Your task to perform on an android device: Open wifi settings Image 0: 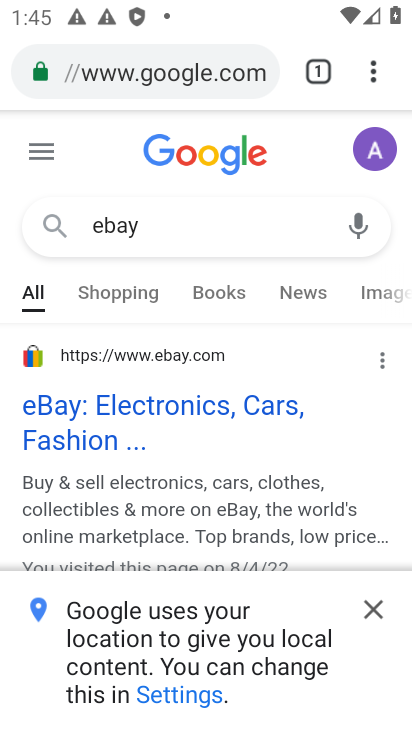
Step 0: press home button
Your task to perform on an android device: Open wifi settings Image 1: 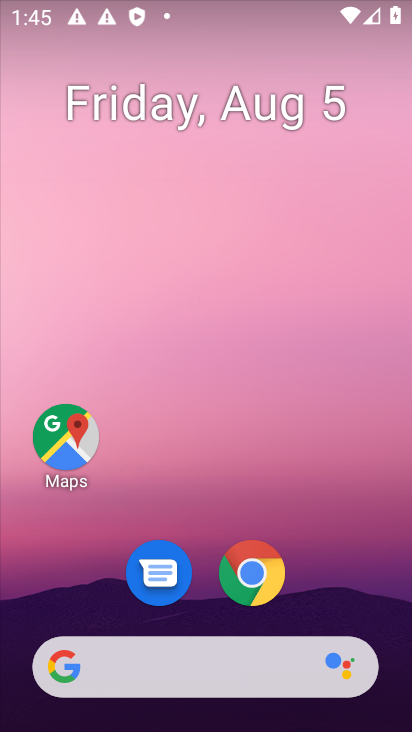
Step 1: drag from (347, 583) to (385, 253)
Your task to perform on an android device: Open wifi settings Image 2: 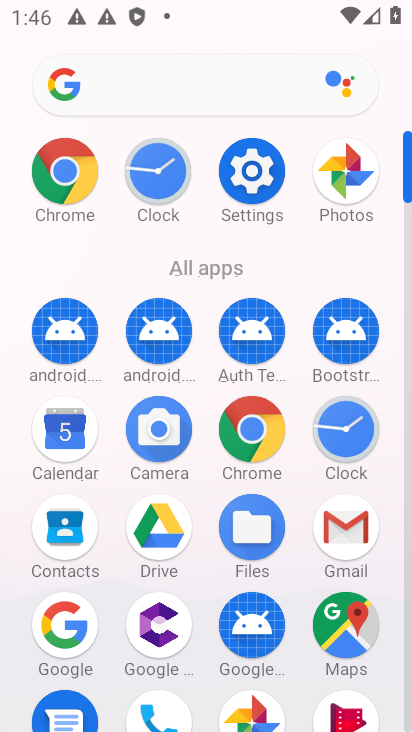
Step 2: click (263, 176)
Your task to perform on an android device: Open wifi settings Image 3: 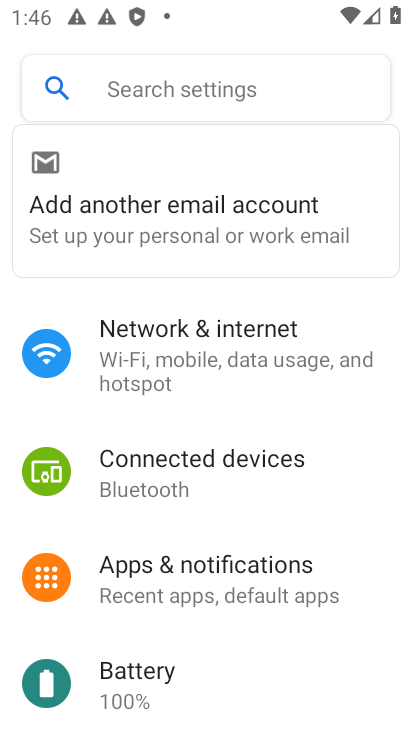
Step 3: drag from (347, 494) to (357, 399)
Your task to perform on an android device: Open wifi settings Image 4: 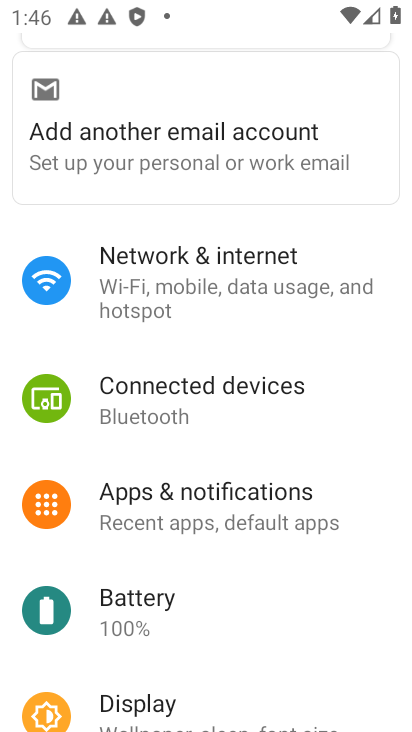
Step 4: drag from (367, 591) to (394, 439)
Your task to perform on an android device: Open wifi settings Image 5: 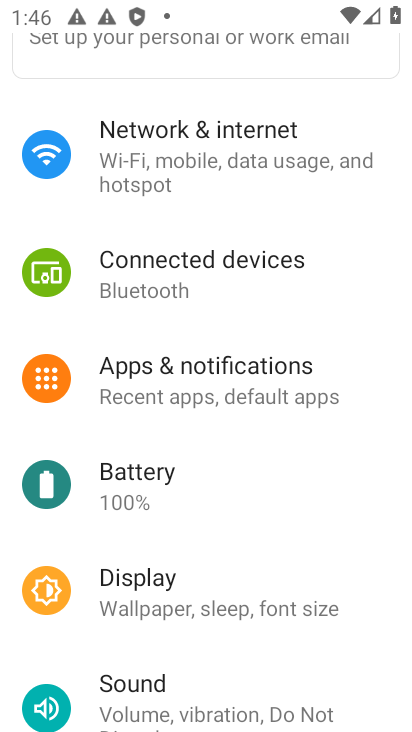
Step 5: drag from (379, 562) to (380, 457)
Your task to perform on an android device: Open wifi settings Image 6: 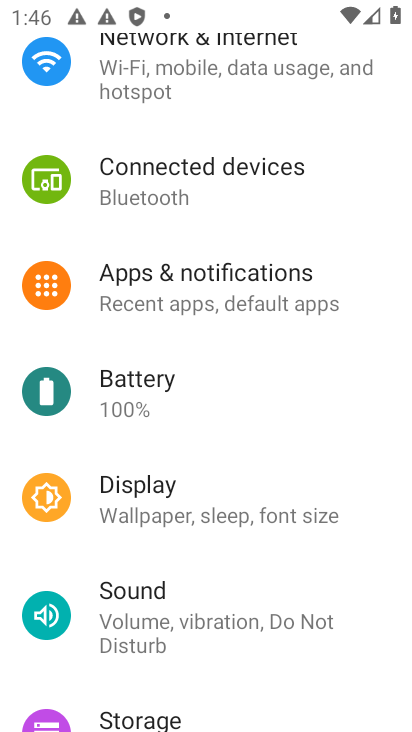
Step 6: drag from (352, 562) to (357, 464)
Your task to perform on an android device: Open wifi settings Image 7: 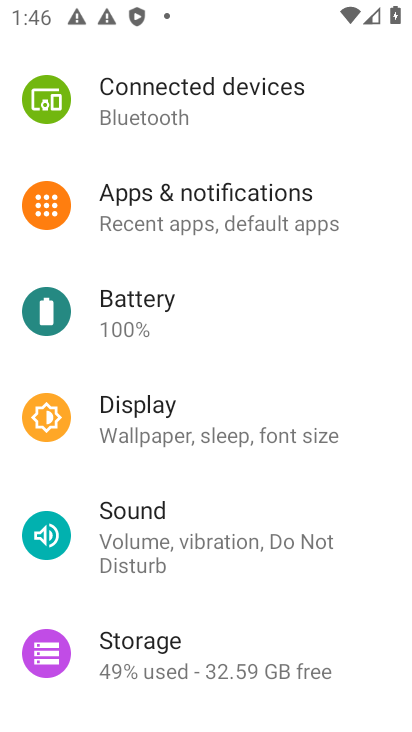
Step 7: drag from (357, 616) to (359, 494)
Your task to perform on an android device: Open wifi settings Image 8: 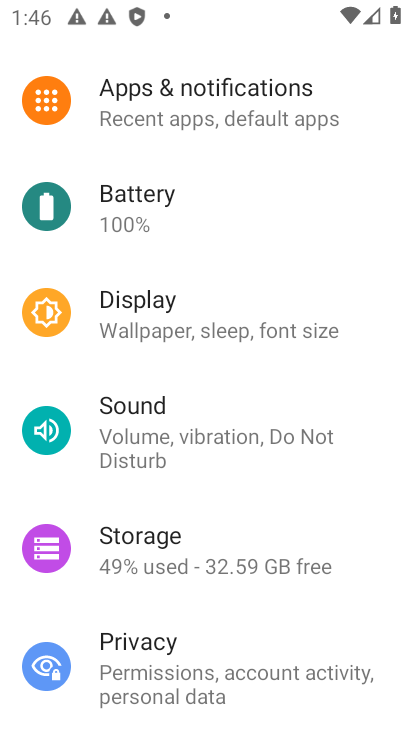
Step 8: drag from (371, 403) to (373, 478)
Your task to perform on an android device: Open wifi settings Image 9: 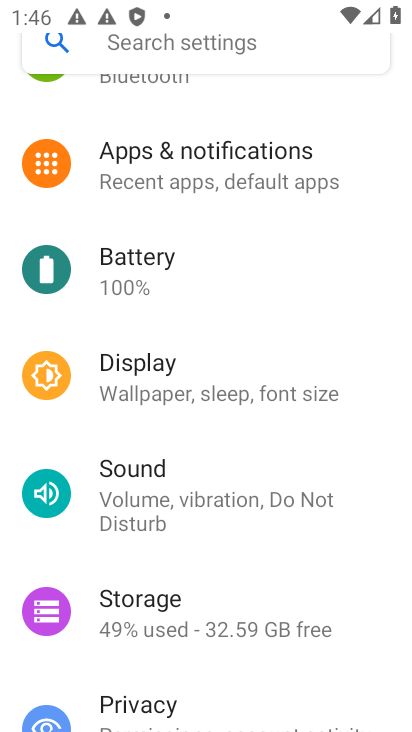
Step 9: drag from (372, 358) to (372, 463)
Your task to perform on an android device: Open wifi settings Image 10: 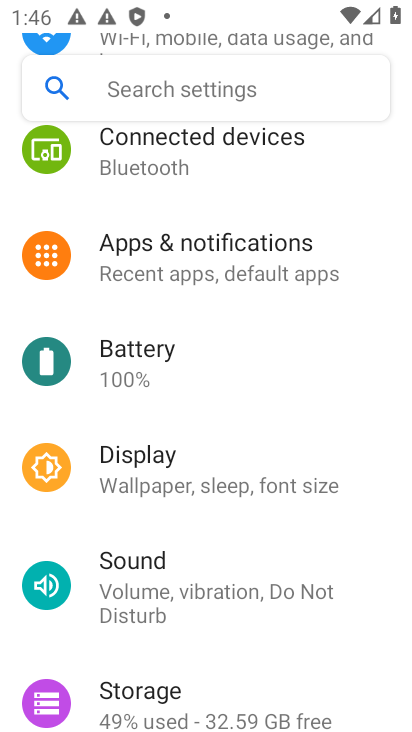
Step 10: drag from (359, 331) to (364, 474)
Your task to perform on an android device: Open wifi settings Image 11: 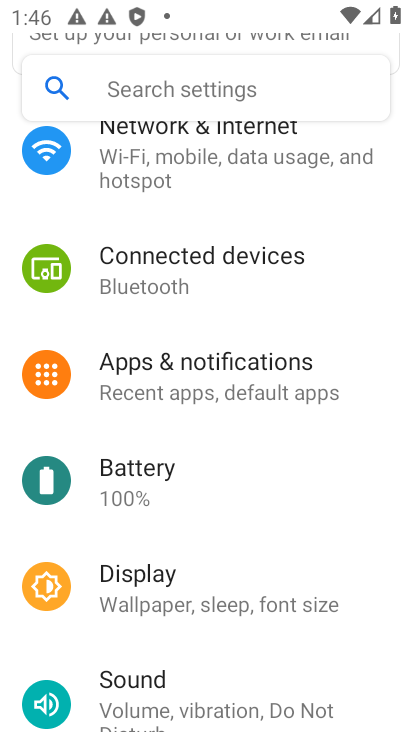
Step 11: drag from (356, 319) to (354, 458)
Your task to perform on an android device: Open wifi settings Image 12: 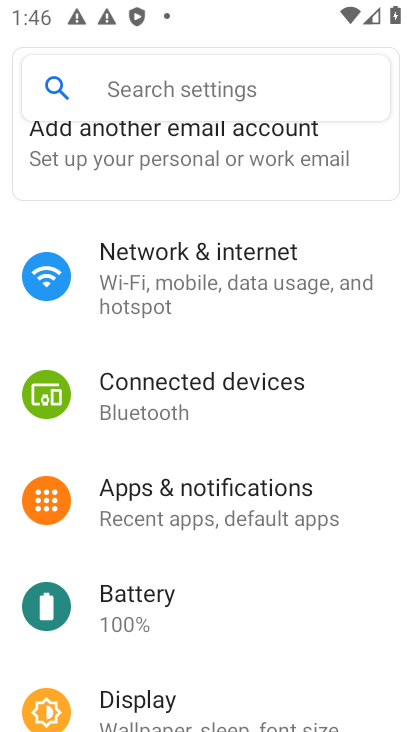
Step 12: drag from (355, 317) to (357, 493)
Your task to perform on an android device: Open wifi settings Image 13: 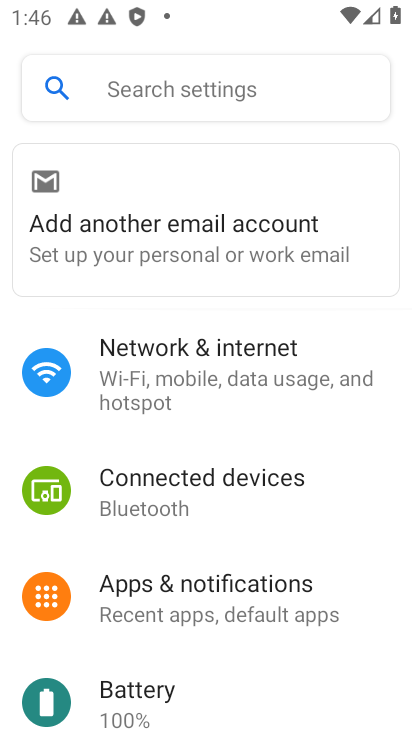
Step 13: click (324, 363)
Your task to perform on an android device: Open wifi settings Image 14: 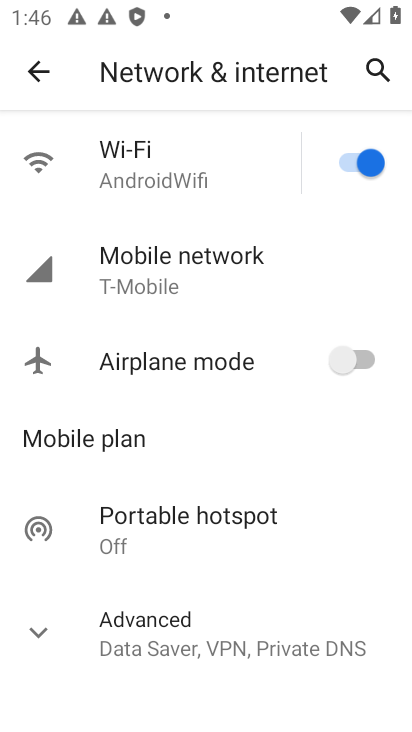
Step 14: click (189, 176)
Your task to perform on an android device: Open wifi settings Image 15: 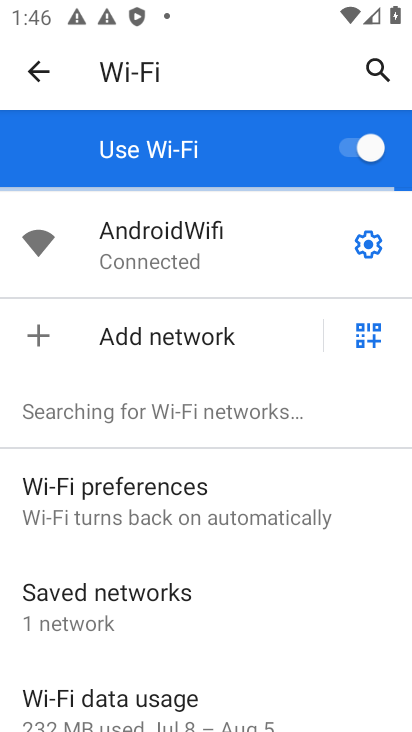
Step 15: task complete